Your task to perform on an android device: change notifications settings Image 0: 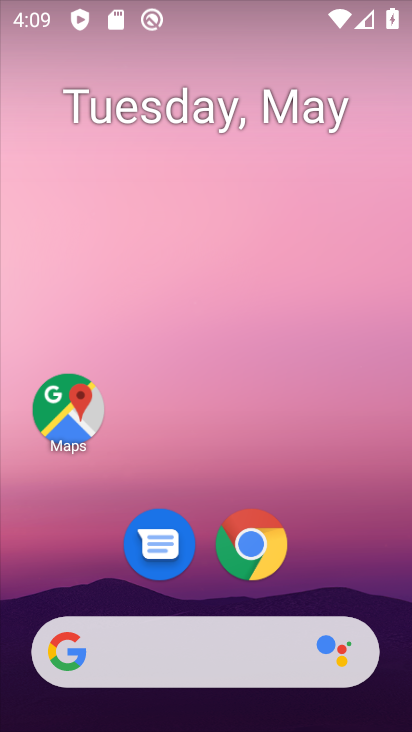
Step 0: drag from (162, 505) to (167, 405)
Your task to perform on an android device: change notifications settings Image 1: 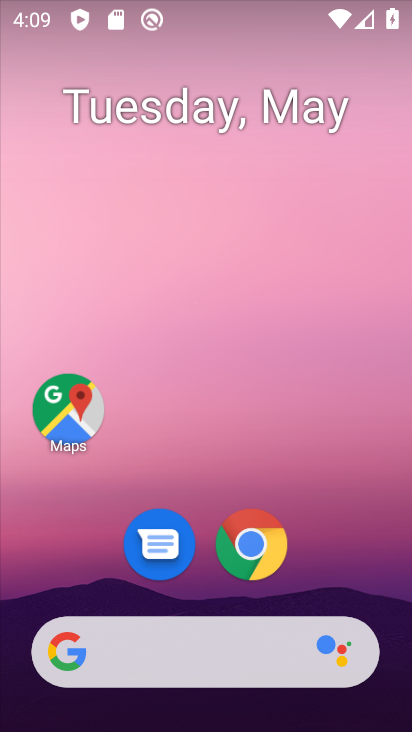
Step 1: drag from (173, 630) to (178, 277)
Your task to perform on an android device: change notifications settings Image 2: 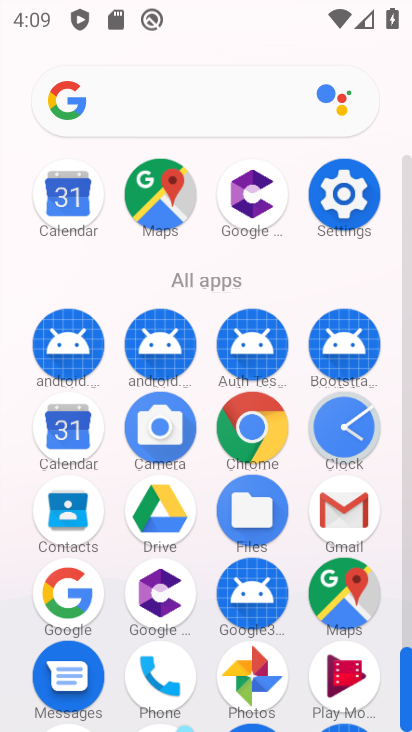
Step 2: click (355, 204)
Your task to perform on an android device: change notifications settings Image 3: 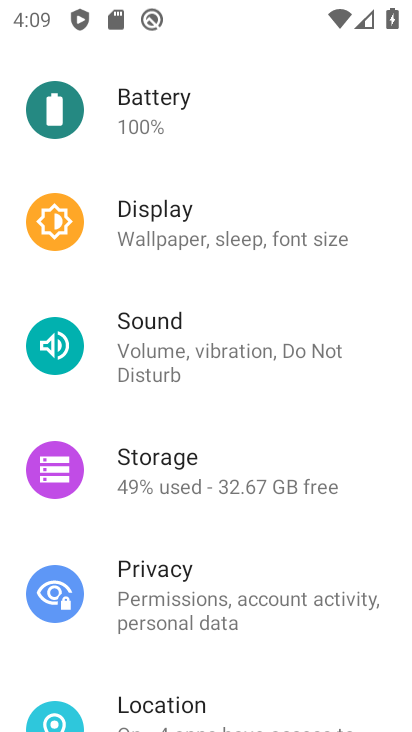
Step 3: drag from (131, 684) to (136, 303)
Your task to perform on an android device: change notifications settings Image 4: 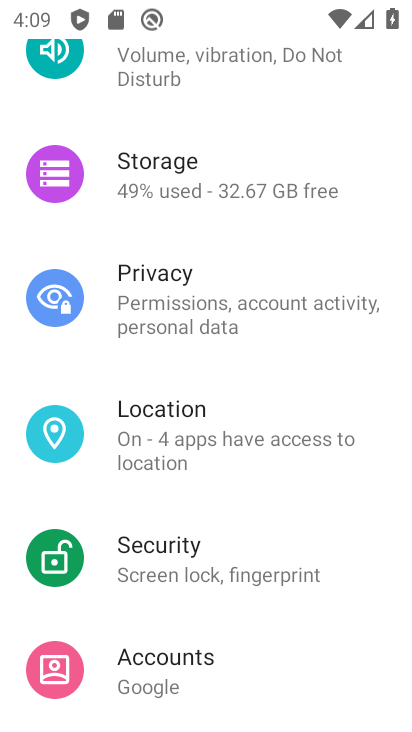
Step 4: drag from (167, 124) to (159, 619)
Your task to perform on an android device: change notifications settings Image 5: 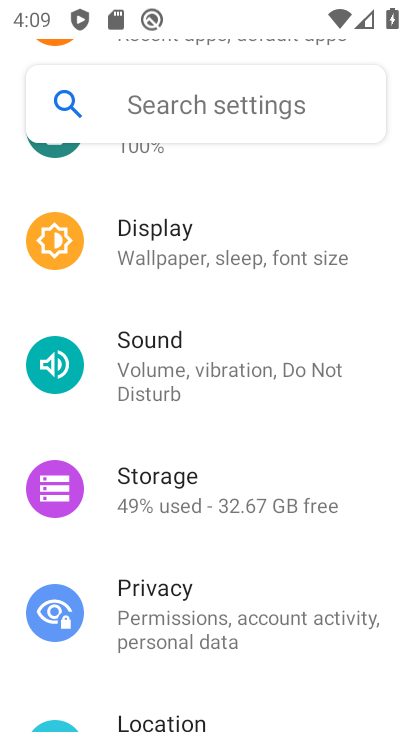
Step 5: drag from (266, 199) to (195, 617)
Your task to perform on an android device: change notifications settings Image 6: 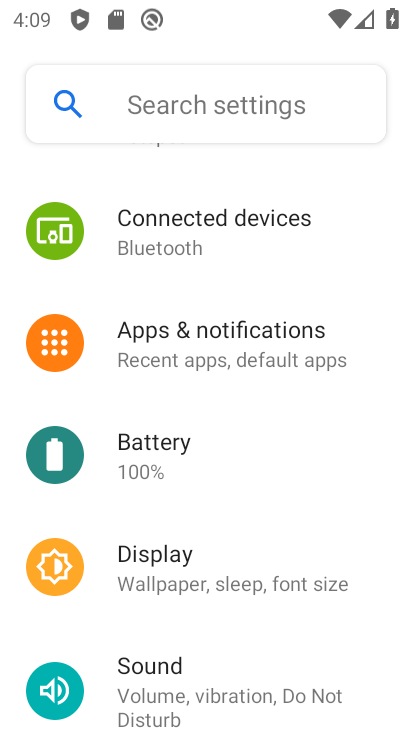
Step 6: click (181, 343)
Your task to perform on an android device: change notifications settings Image 7: 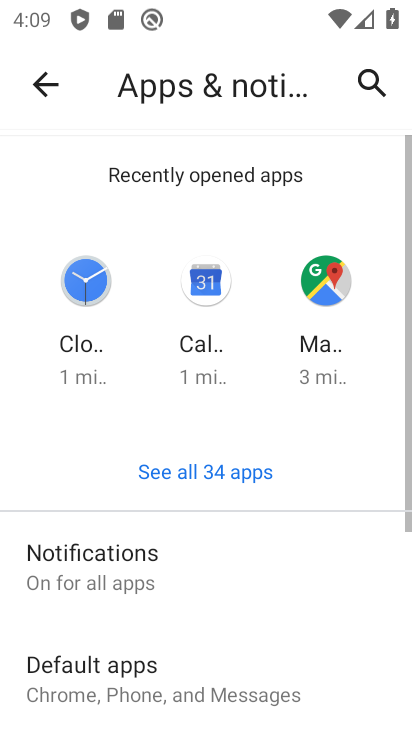
Step 7: drag from (178, 685) to (146, 362)
Your task to perform on an android device: change notifications settings Image 8: 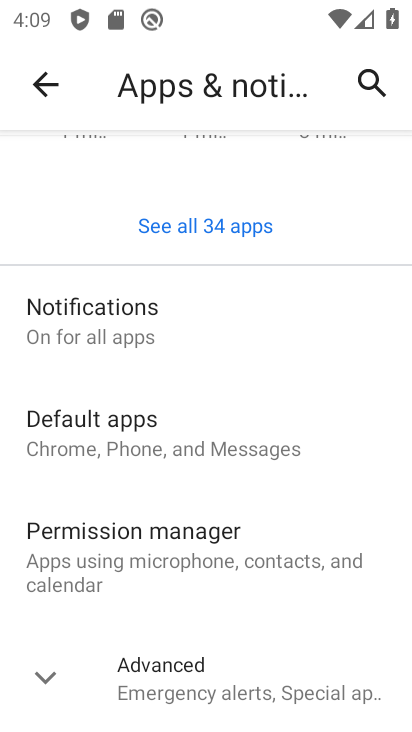
Step 8: click (191, 694)
Your task to perform on an android device: change notifications settings Image 9: 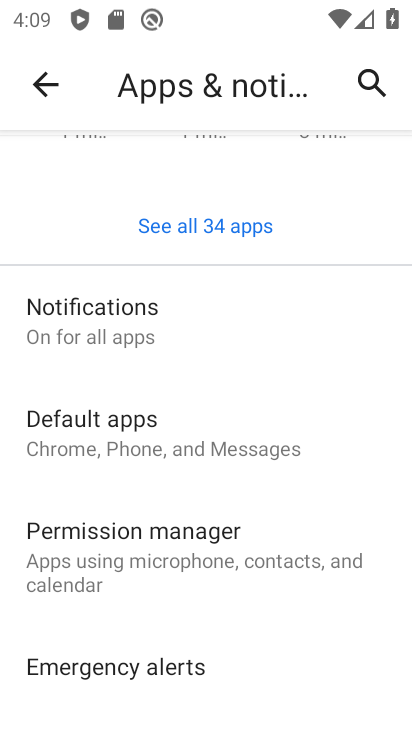
Step 9: task complete